Your task to perform on an android device: Open calendar and show me the fourth week of next month Image 0: 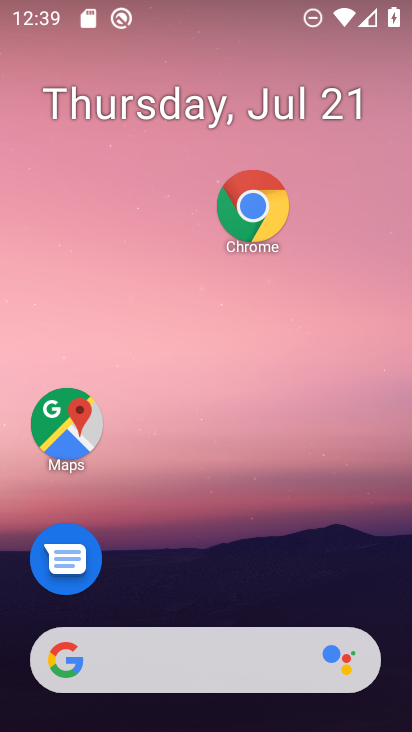
Step 0: drag from (177, 598) to (204, 81)
Your task to perform on an android device: Open calendar and show me the fourth week of next month Image 1: 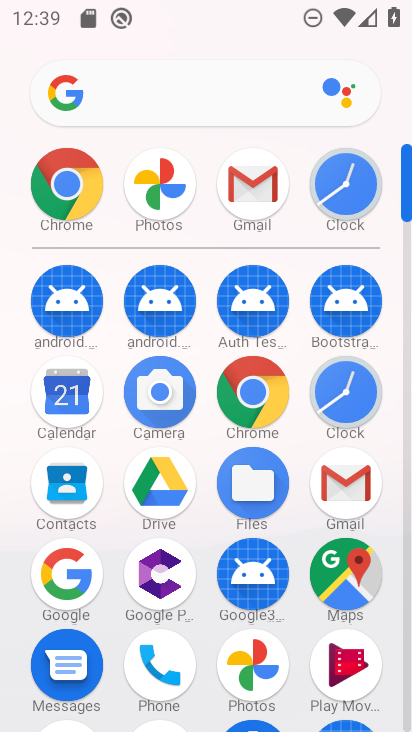
Step 1: click (67, 412)
Your task to perform on an android device: Open calendar and show me the fourth week of next month Image 2: 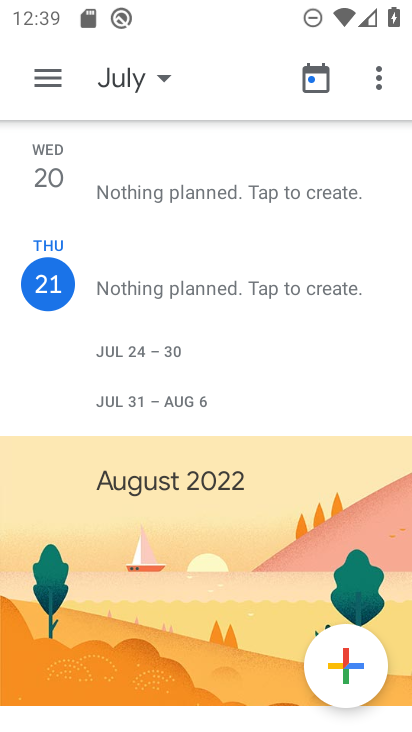
Step 2: click (288, 574)
Your task to perform on an android device: Open calendar and show me the fourth week of next month Image 3: 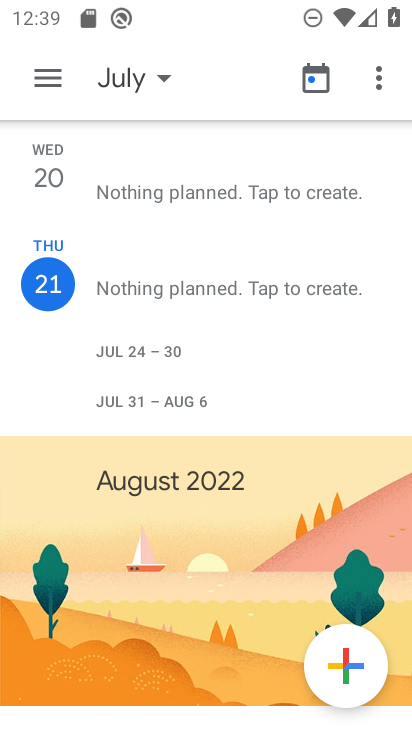
Step 3: click (159, 81)
Your task to perform on an android device: Open calendar and show me the fourth week of next month Image 4: 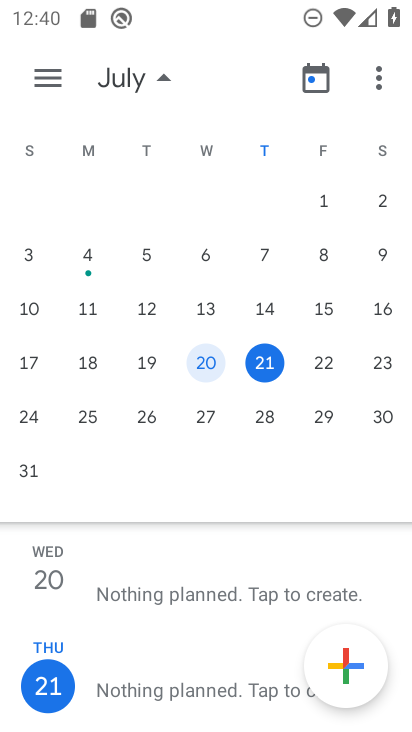
Step 4: drag from (372, 311) to (1, 325)
Your task to perform on an android device: Open calendar and show me the fourth week of next month Image 5: 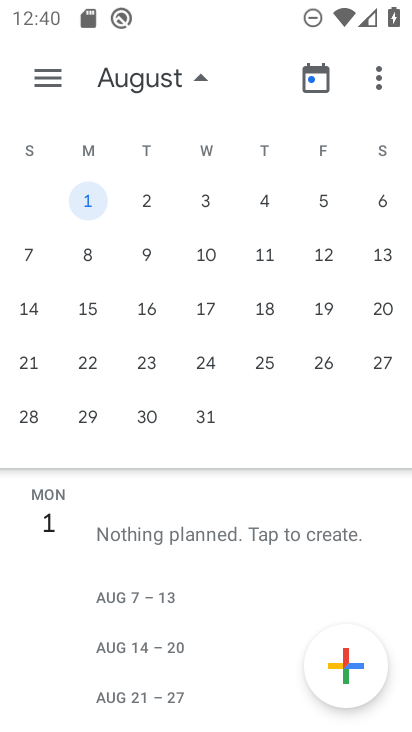
Step 5: drag from (331, 313) to (236, 309)
Your task to perform on an android device: Open calendar and show me the fourth week of next month Image 6: 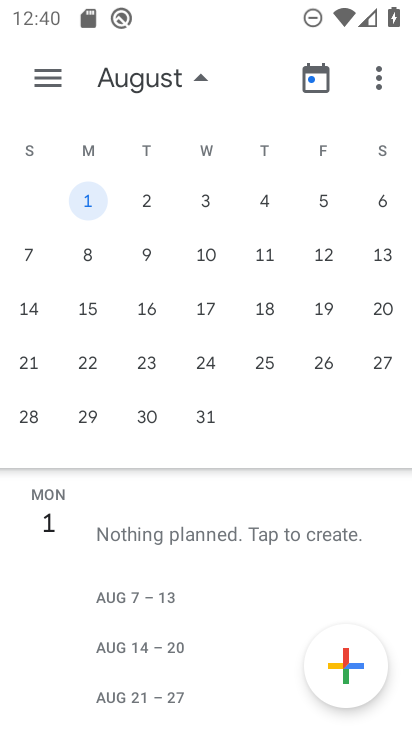
Step 6: click (86, 372)
Your task to perform on an android device: Open calendar and show me the fourth week of next month Image 7: 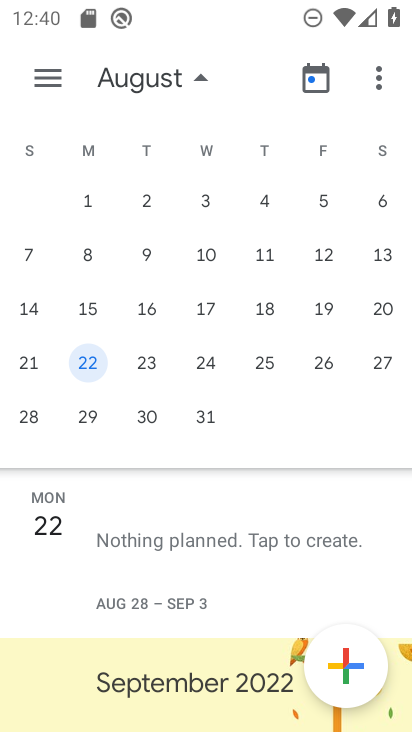
Step 7: task complete